Your task to perform on an android device: turn on bluetooth scan Image 0: 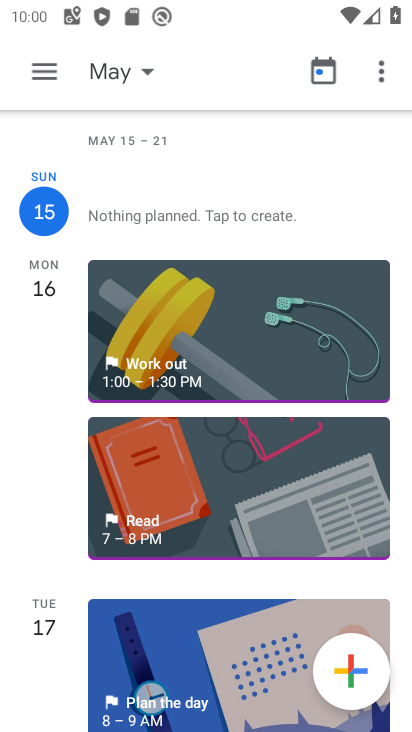
Step 0: press home button
Your task to perform on an android device: turn on bluetooth scan Image 1: 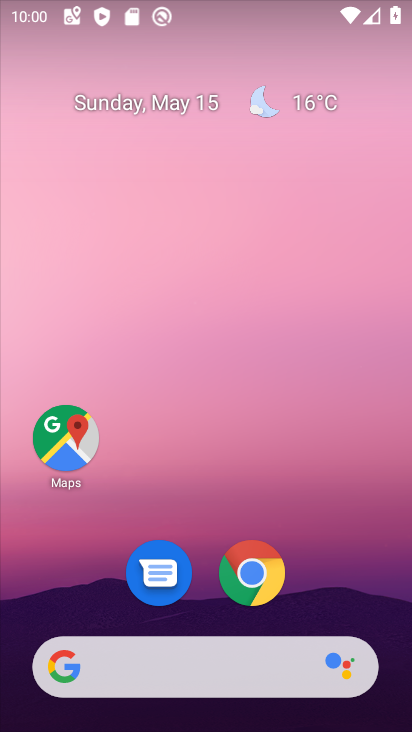
Step 1: drag from (317, 551) to (410, 243)
Your task to perform on an android device: turn on bluetooth scan Image 2: 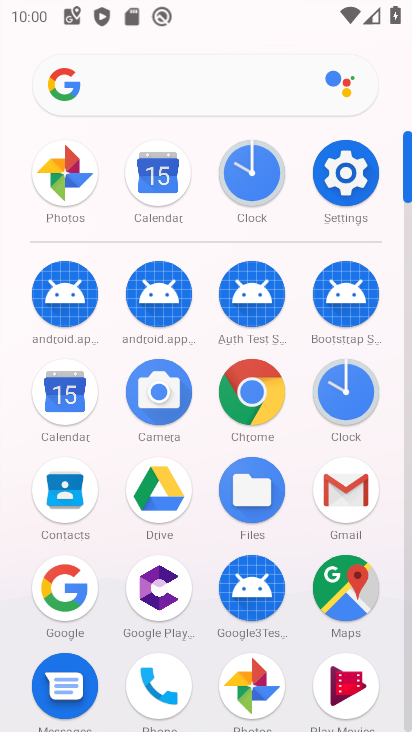
Step 2: click (339, 199)
Your task to perform on an android device: turn on bluetooth scan Image 3: 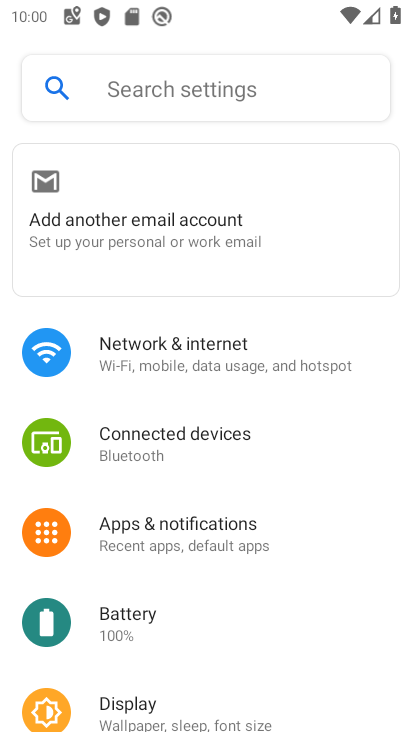
Step 3: drag from (342, 580) to (363, 85)
Your task to perform on an android device: turn on bluetooth scan Image 4: 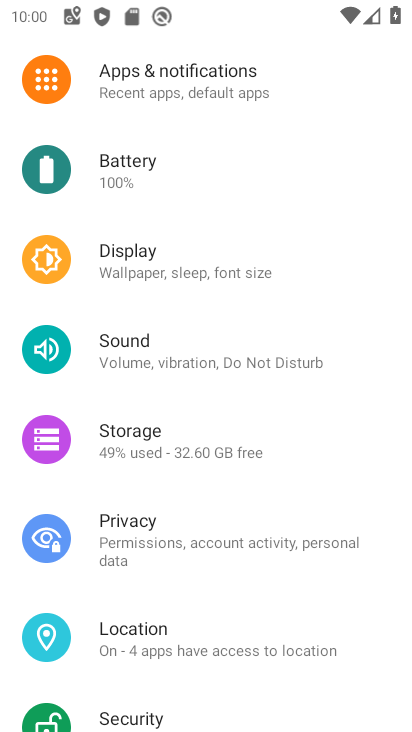
Step 4: click (126, 642)
Your task to perform on an android device: turn on bluetooth scan Image 5: 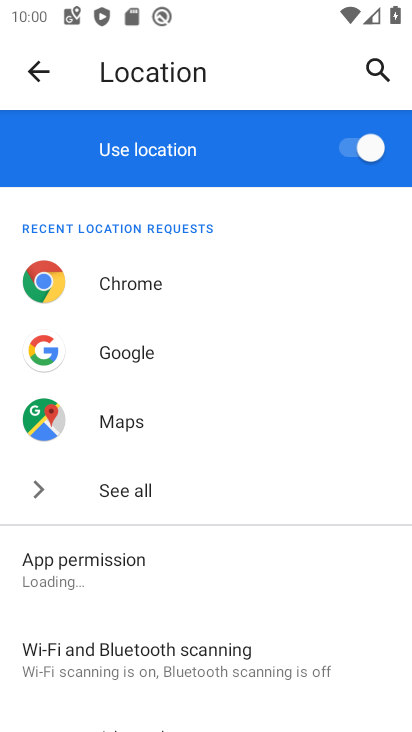
Step 5: click (223, 651)
Your task to perform on an android device: turn on bluetooth scan Image 6: 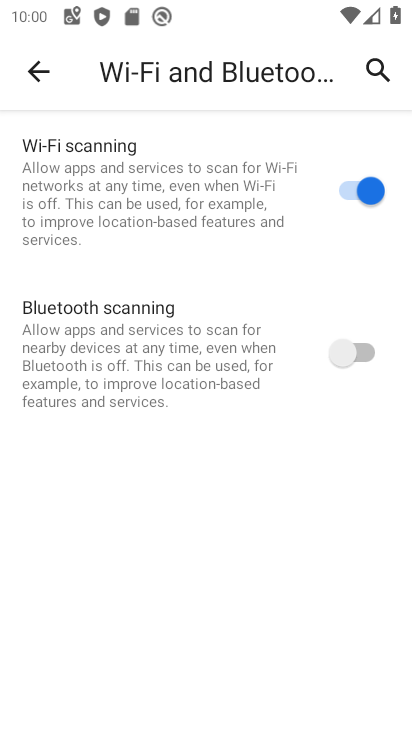
Step 6: click (226, 382)
Your task to perform on an android device: turn on bluetooth scan Image 7: 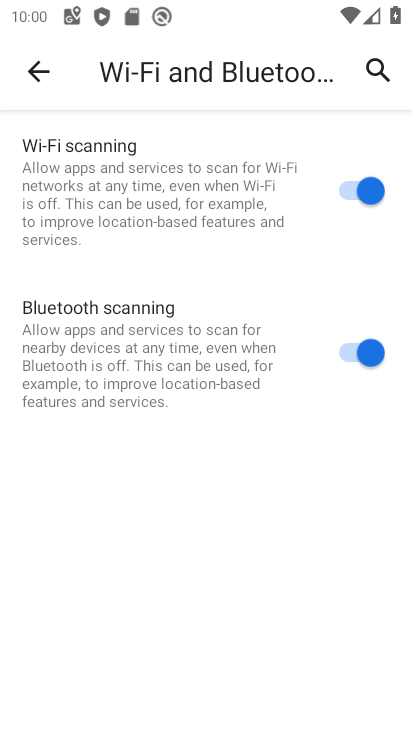
Step 7: task complete